Your task to perform on an android device: refresh tabs in the chrome app Image 0: 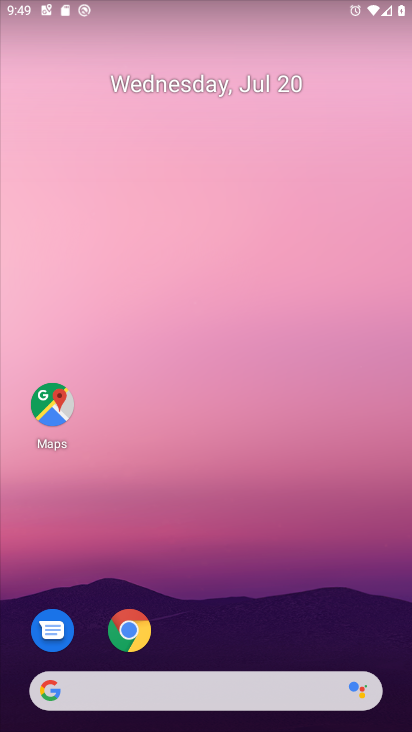
Step 0: drag from (195, 689) to (204, 189)
Your task to perform on an android device: refresh tabs in the chrome app Image 1: 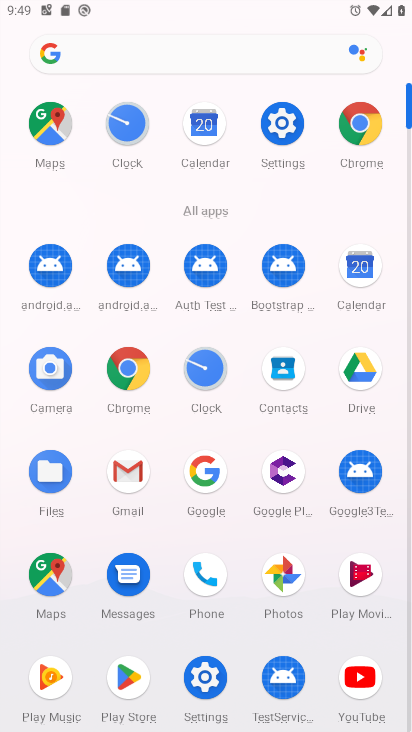
Step 1: click (129, 376)
Your task to perform on an android device: refresh tabs in the chrome app Image 2: 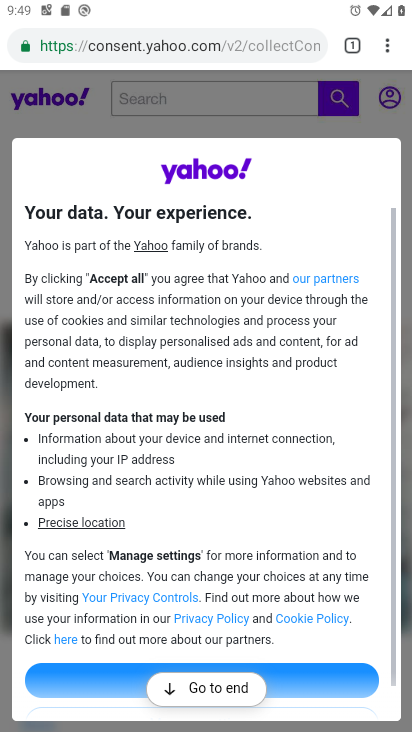
Step 2: click (386, 43)
Your task to perform on an android device: refresh tabs in the chrome app Image 3: 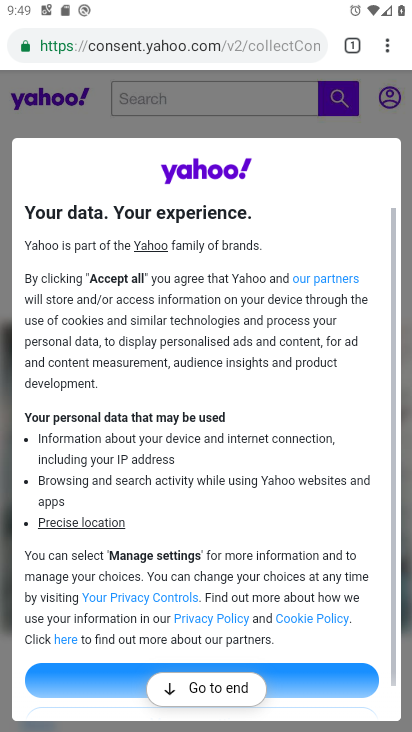
Step 3: task complete